Your task to perform on an android device: turn on data saver in the chrome app Image 0: 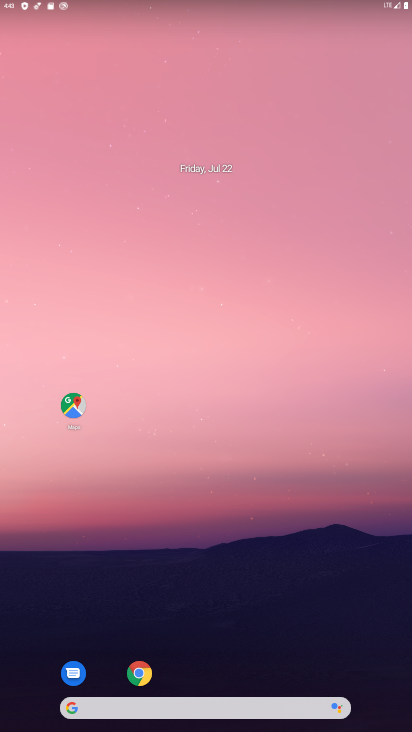
Step 0: press home button
Your task to perform on an android device: turn on data saver in the chrome app Image 1: 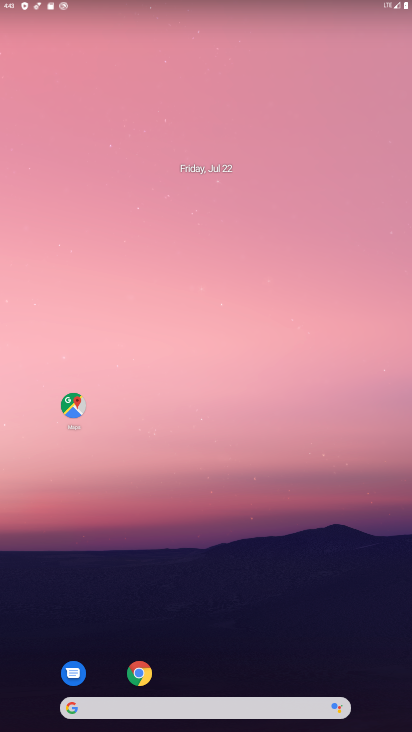
Step 1: click (154, 676)
Your task to perform on an android device: turn on data saver in the chrome app Image 2: 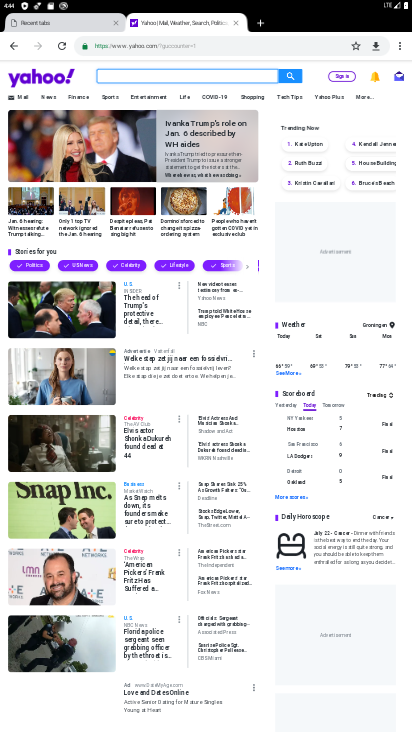
Step 2: drag from (399, 45) to (298, 310)
Your task to perform on an android device: turn on data saver in the chrome app Image 3: 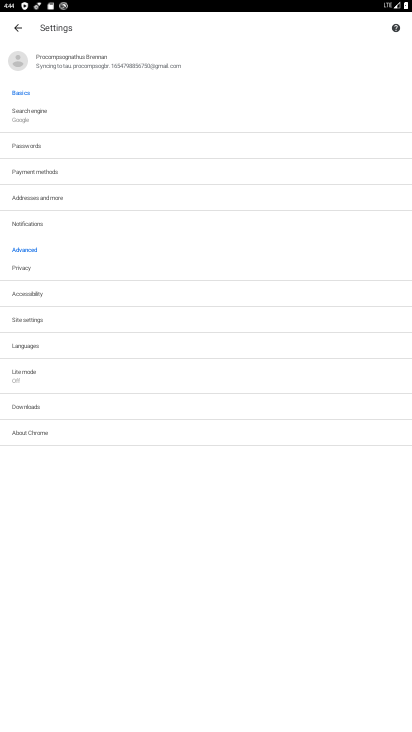
Step 3: click (20, 375)
Your task to perform on an android device: turn on data saver in the chrome app Image 4: 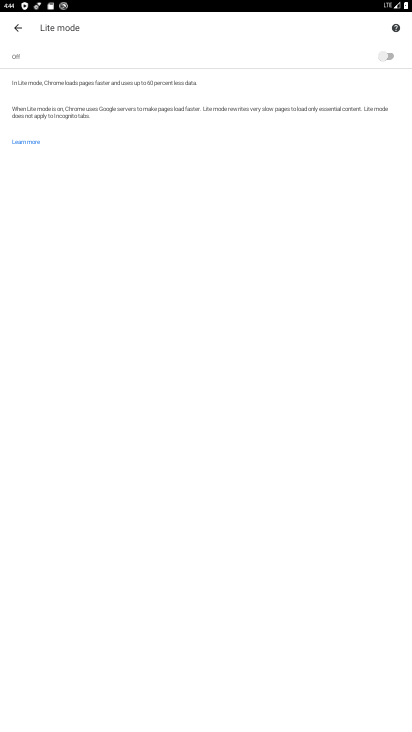
Step 4: click (393, 54)
Your task to perform on an android device: turn on data saver in the chrome app Image 5: 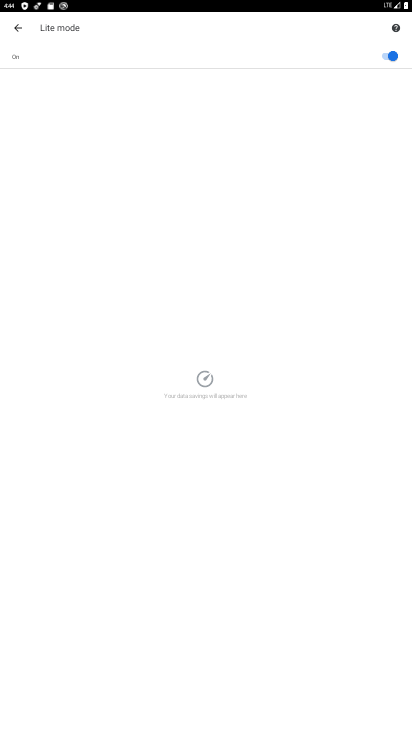
Step 5: task complete